Your task to perform on an android device: find snoozed emails in the gmail app Image 0: 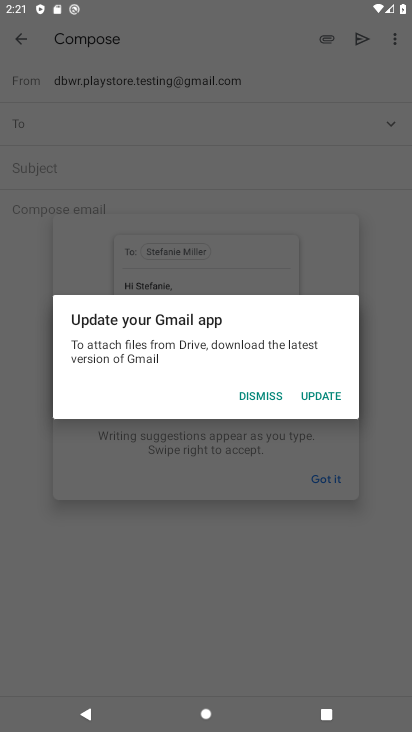
Step 0: press home button
Your task to perform on an android device: find snoozed emails in the gmail app Image 1: 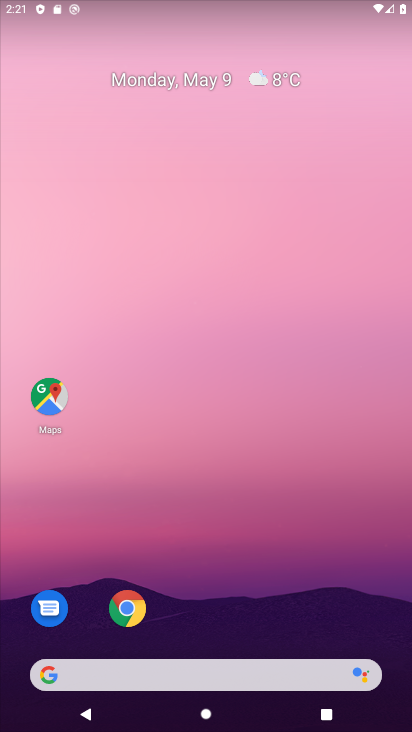
Step 1: drag from (248, 542) to (260, 146)
Your task to perform on an android device: find snoozed emails in the gmail app Image 2: 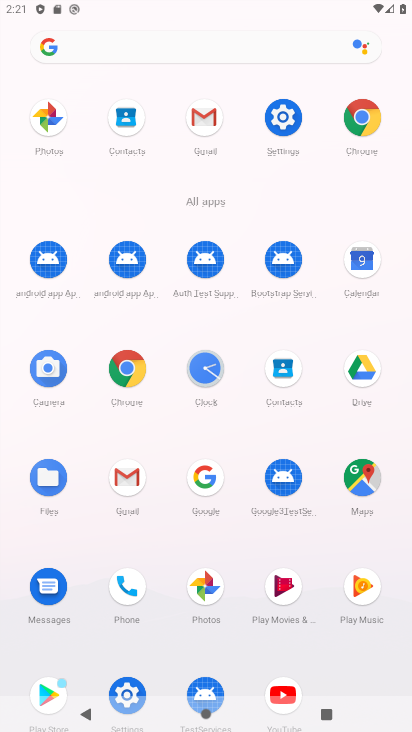
Step 2: click (207, 119)
Your task to perform on an android device: find snoozed emails in the gmail app Image 3: 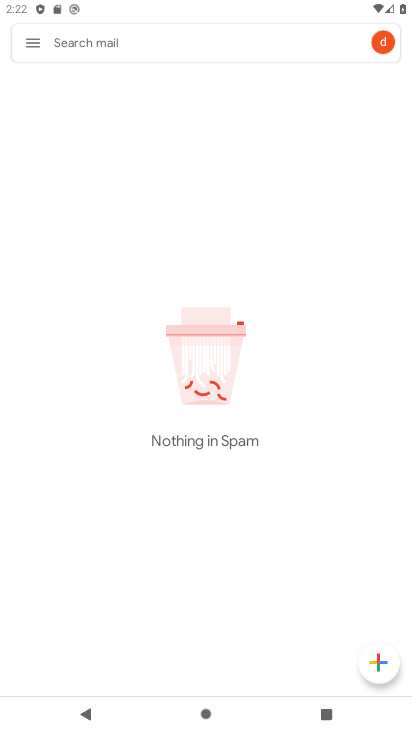
Step 3: click (27, 39)
Your task to perform on an android device: find snoozed emails in the gmail app Image 4: 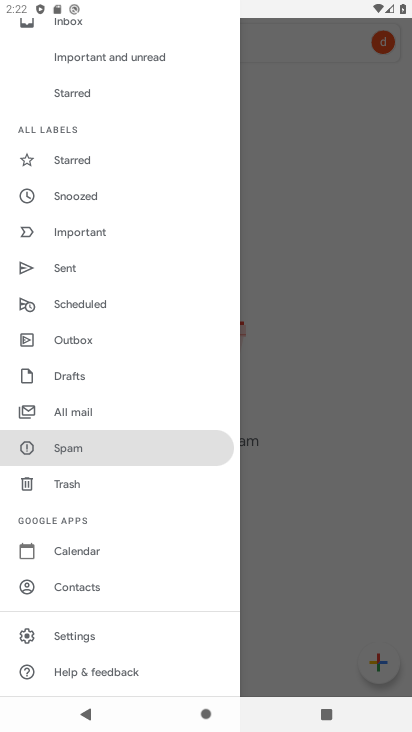
Step 4: click (96, 198)
Your task to perform on an android device: find snoozed emails in the gmail app Image 5: 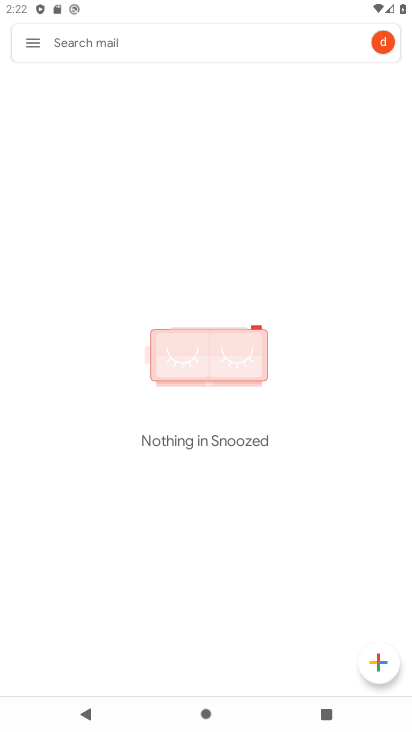
Step 5: task complete